Your task to perform on an android device: Search for Mexican restaurants on Maps Image 0: 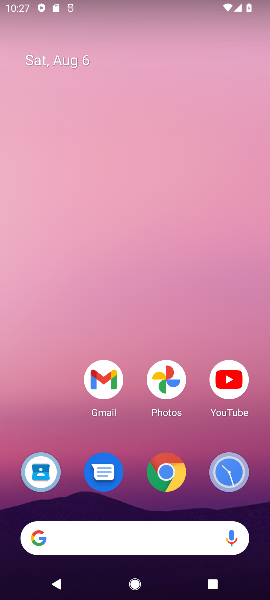
Step 0: drag from (175, 537) to (104, 366)
Your task to perform on an android device: Search for Mexican restaurants on Maps Image 1: 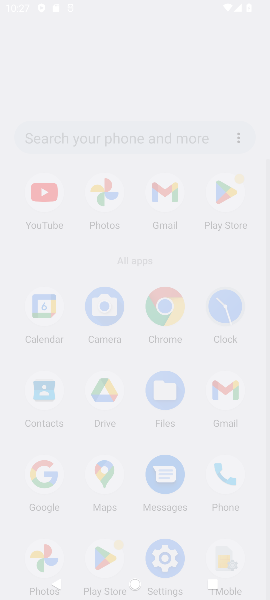
Step 1: drag from (144, 557) to (123, 312)
Your task to perform on an android device: Search for Mexican restaurants on Maps Image 2: 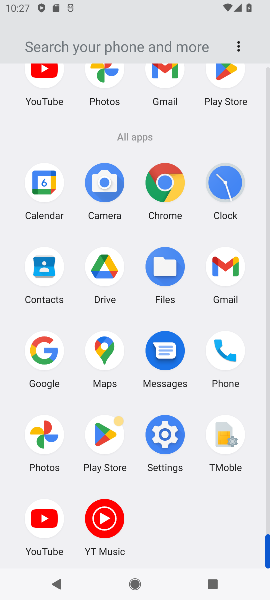
Step 2: click (99, 352)
Your task to perform on an android device: Search for Mexican restaurants on Maps Image 3: 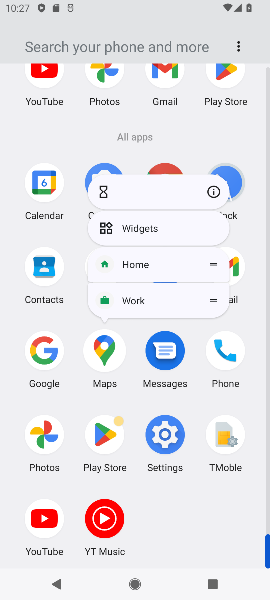
Step 3: click (97, 350)
Your task to perform on an android device: Search for Mexican restaurants on Maps Image 4: 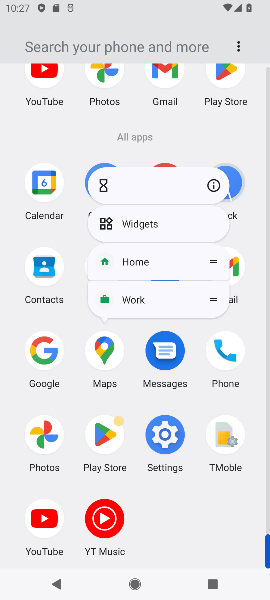
Step 4: click (98, 351)
Your task to perform on an android device: Search for Mexican restaurants on Maps Image 5: 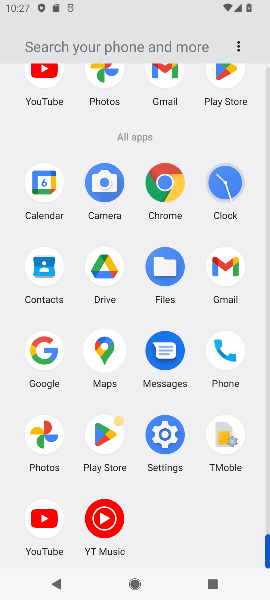
Step 5: click (104, 351)
Your task to perform on an android device: Search for Mexican restaurants on Maps Image 6: 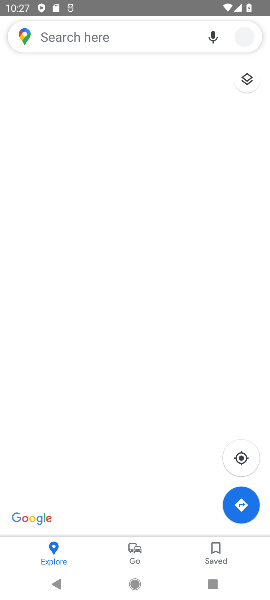
Step 6: click (65, 21)
Your task to perform on an android device: Search for Mexican restaurants on Maps Image 7: 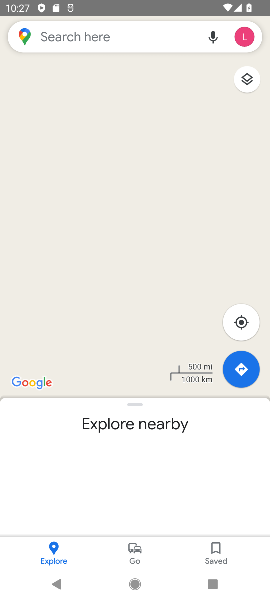
Step 7: click (63, 36)
Your task to perform on an android device: Search for Mexican restaurants on Maps Image 8: 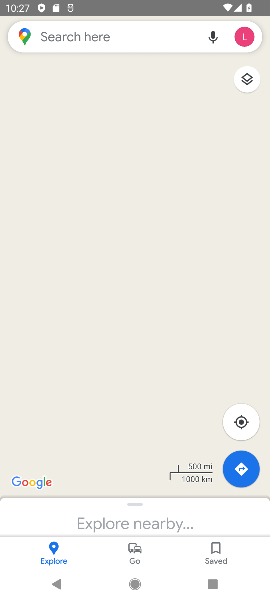
Step 8: click (66, 37)
Your task to perform on an android device: Search for Mexican restaurants on Maps Image 9: 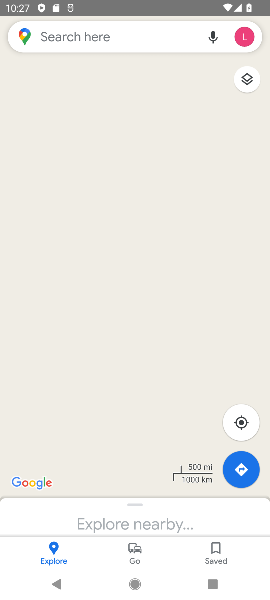
Step 9: click (67, 37)
Your task to perform on an android device: Search for Mexican restaurants on Maps Image 10: 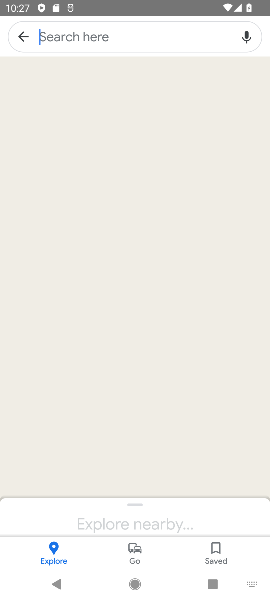
Step 10: click (67, 37)
Your task to perform on an android device: Search for Mexican restaurants on Maps Image 11: 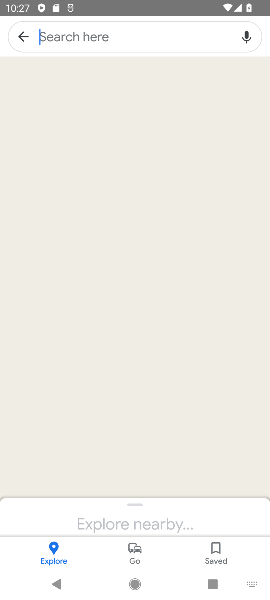
Step 11: click (69, 33)
Your task to perform on an android device: Search for Mexican restaurants on Maps Image 12: 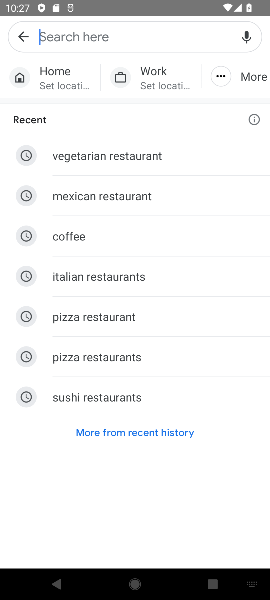
Step 12: type "mexican retsaur"
Your task to perform on an android device: Search for Mexican restaurants on Maps Image 13: 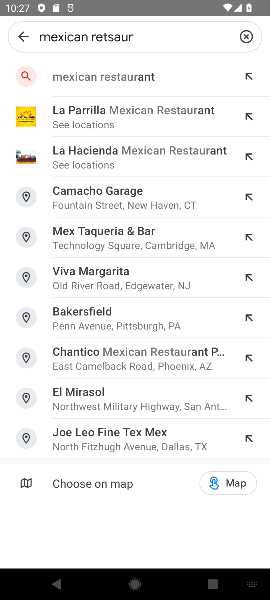
Step 13: click (153, 82)
Your task to perform on an android device: Search for Mexican restaurants on Maps Image 14: 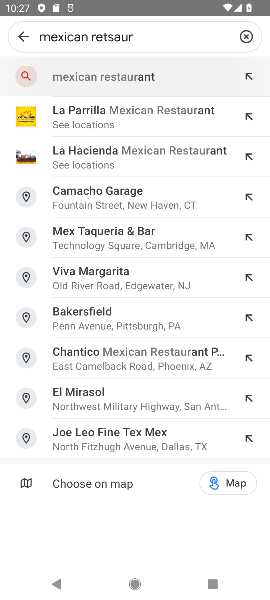
Step 14: click (138, 78)
Your task to perform on an android device: Search for Mexican restaurants on Maps Image 15: 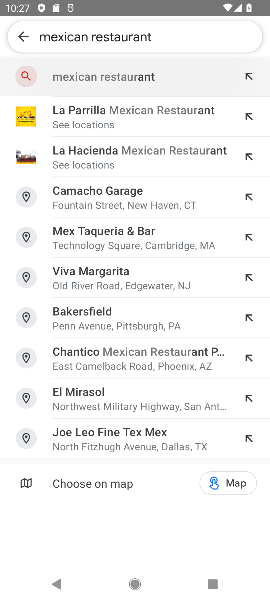
Step 15: click (138, 78)
Your task to perform on an android device: Search for Mexican restaurants on Maps Image 16: 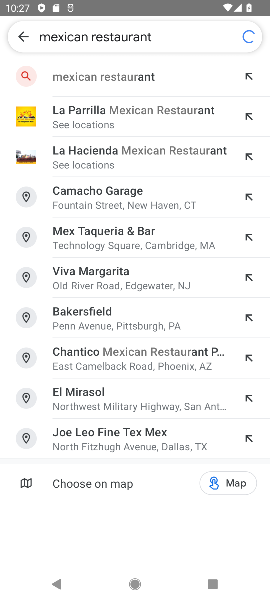
Step 16: click (138, 78)
Your task to perform on an android device: Search for Mexican restaurants on Maps Image 17: 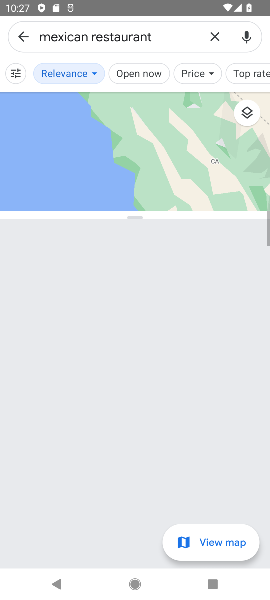
Step 17: click (254, 72)
Your task to perform on an android device: Search for Mexican restaurants on Maps Image 18: 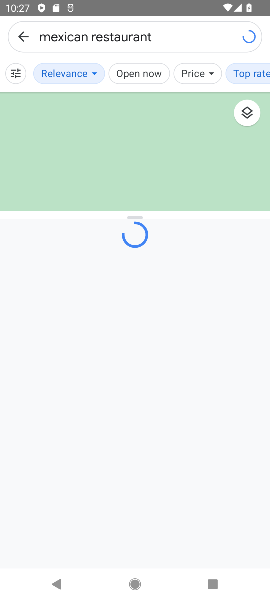
Step 18: task complete